Your task to perform on an android device: open app "LiveIn - Share Your Moment" (install if not already installed) Image 0: 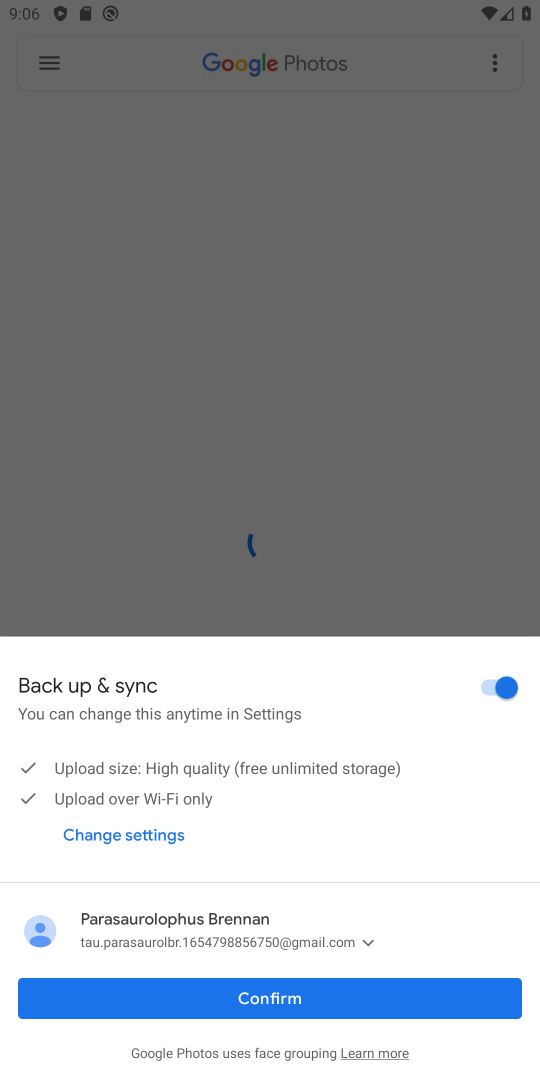
Step 0: press home button
Your task to perform on an android device: open app "LiveIn - Share Your Moment" (install if not already installed) Image 1: 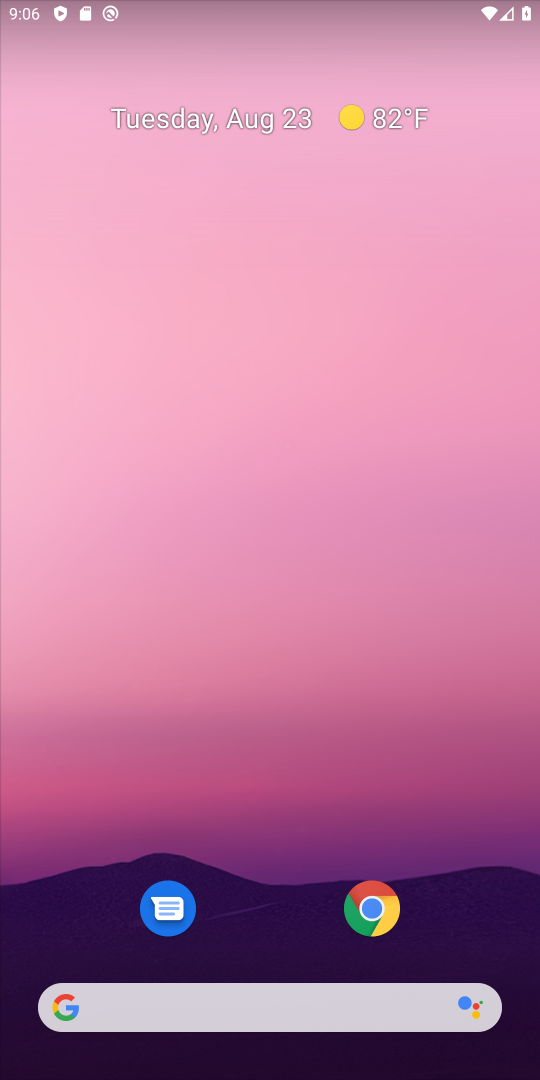
Step 1: drag from (243, 953) to (264, 257)
Your task to perform on an android device: open app "LiveIn - Share Your Moment" (install if not already installed) Image 2: 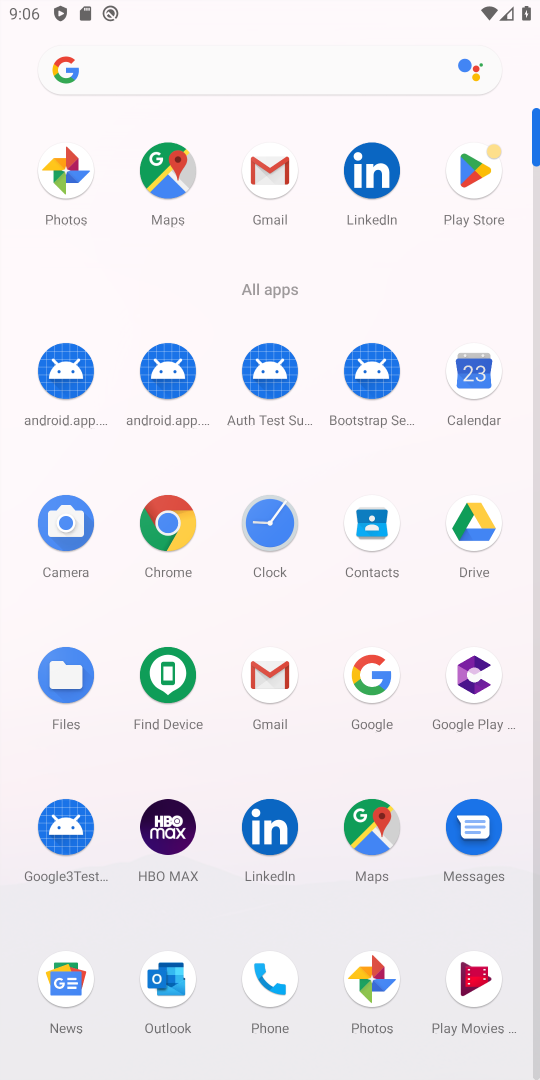
Step 2: click (473, 175)
Your task to perform on an android device: open app "LiveIn - Share Your Moment" (install if not already installed) Image 3: 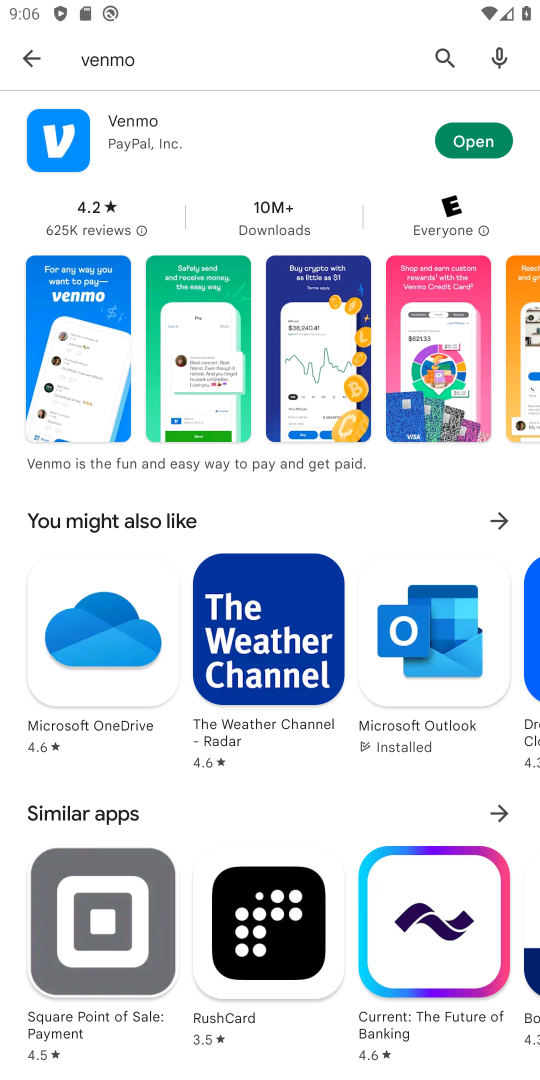
Step 3: click (189, 73)
Your task to perform on an android device: open app "LiveIn - Share Your Moment" (install if not already installed) Image 4: 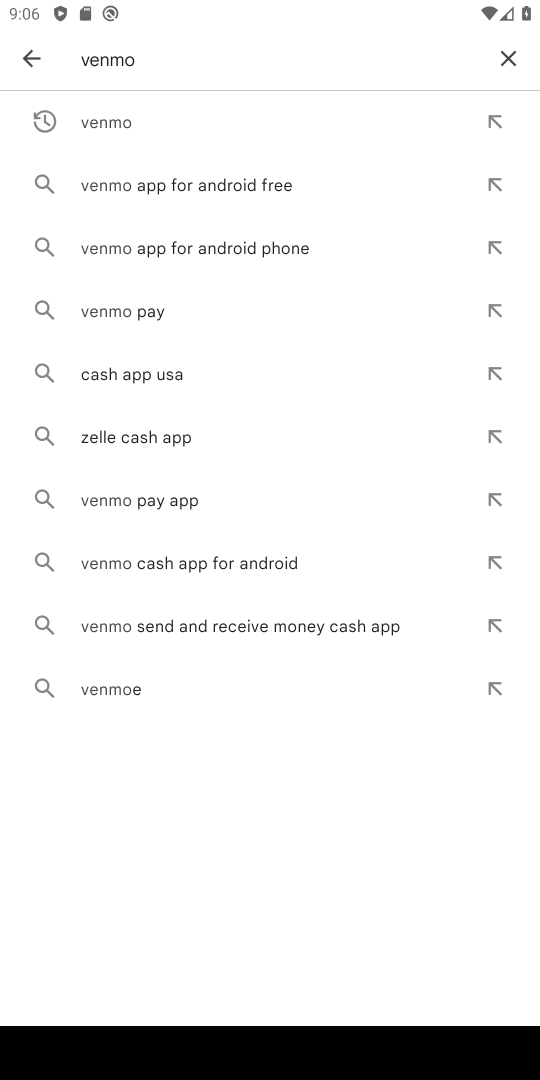
Step 4: click (508, 53)
Your task to perform on an android device: open app "LiveIn - Share Your Moment" (install if not already installed) Image 5: 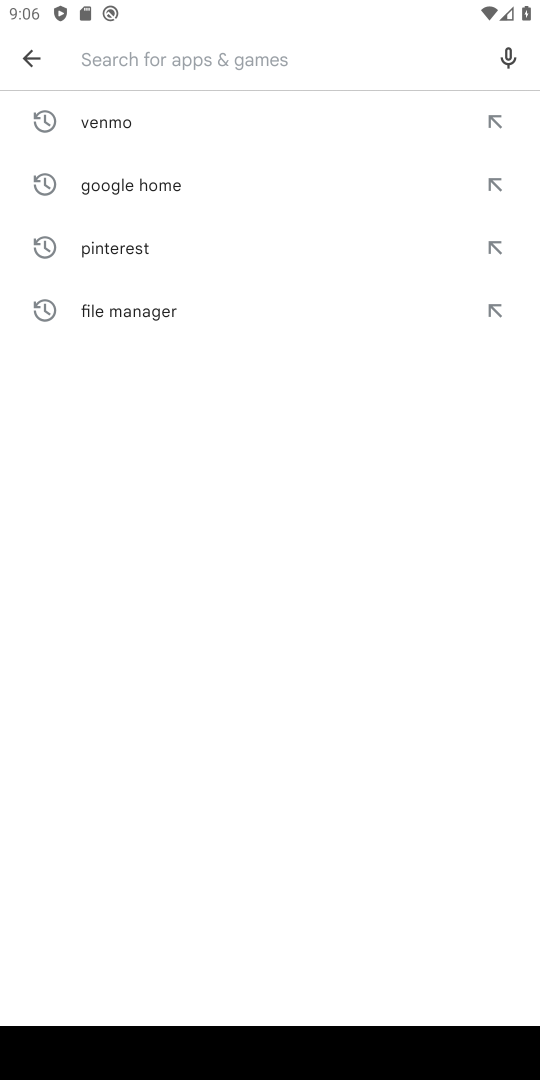
Step 5: type "LiveIn"
Your task to perform on an android device: open app "LiveIn - Share Your Moment" (install if not already installed) Image 6: 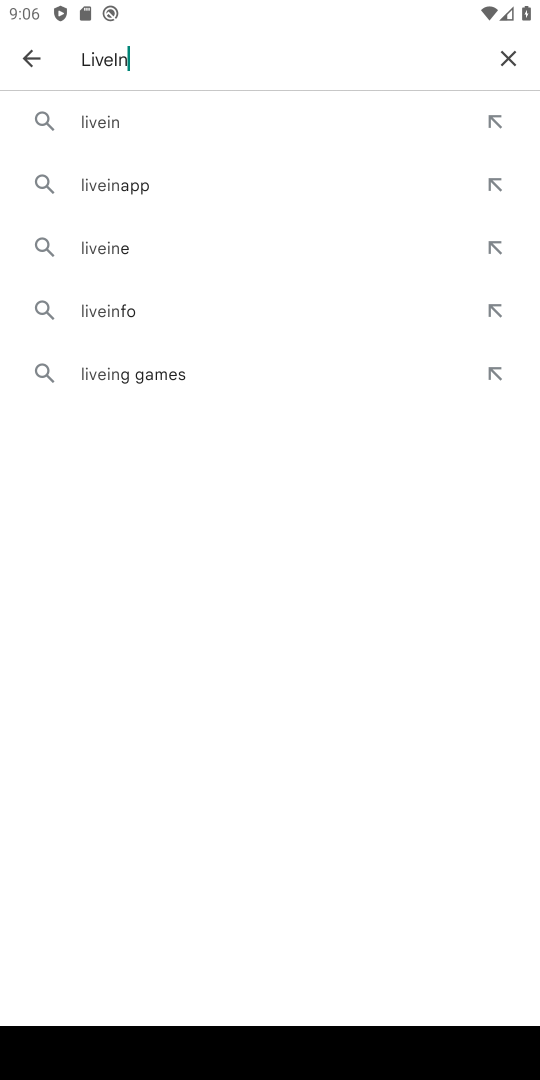
Step 6: click (148, 140)
Your task to perform on an android device: open app "LiveIn - Share Your Moment" (install if not already installed) Image 7: 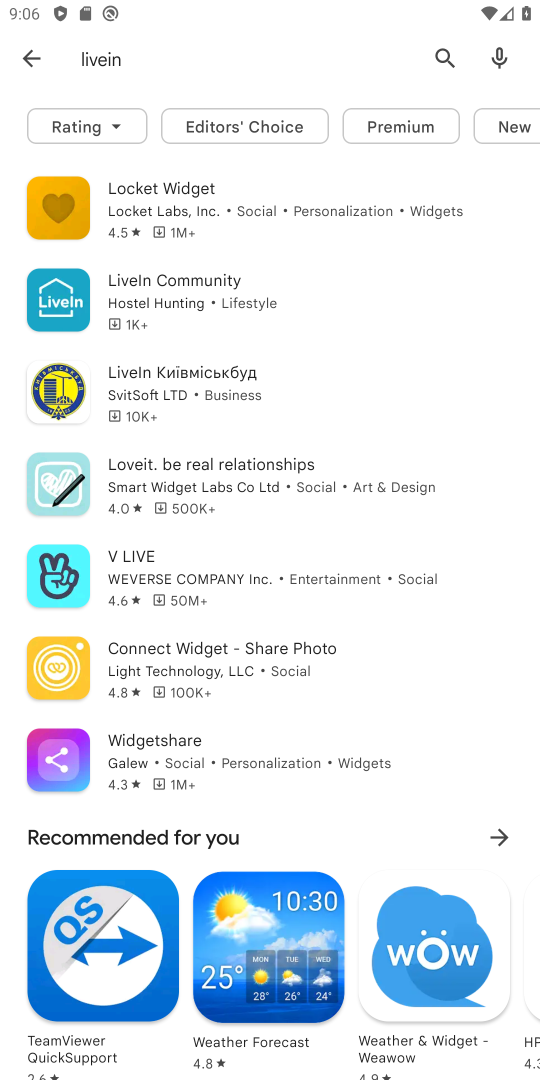
Step 7: task complete